Your task to perform on an android device: open a new tab in the chrome app Image 0: 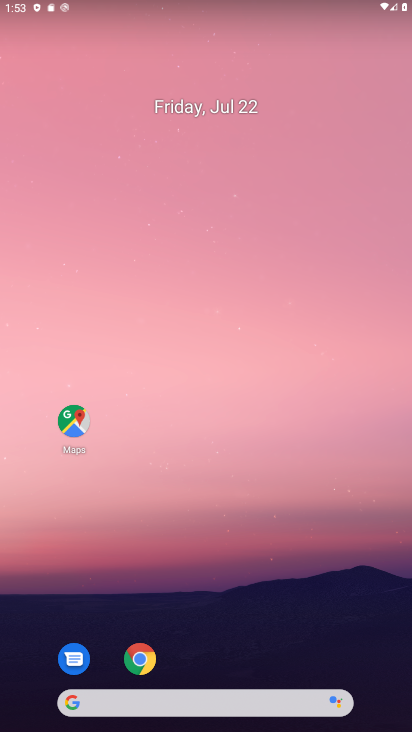
Step 0: click (153, 648)
Your task to perform on an android device: open a new tab in the chrome app Image 1: 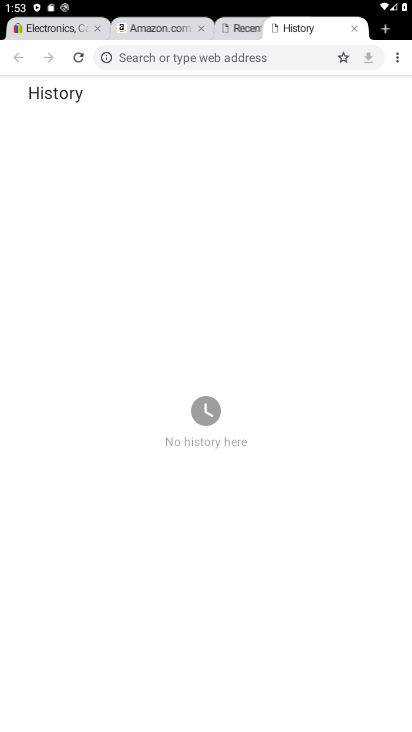
Step 1: task complete